Your task to perform on an android device: open the mobile data screen to see how much data has been used Image 0: 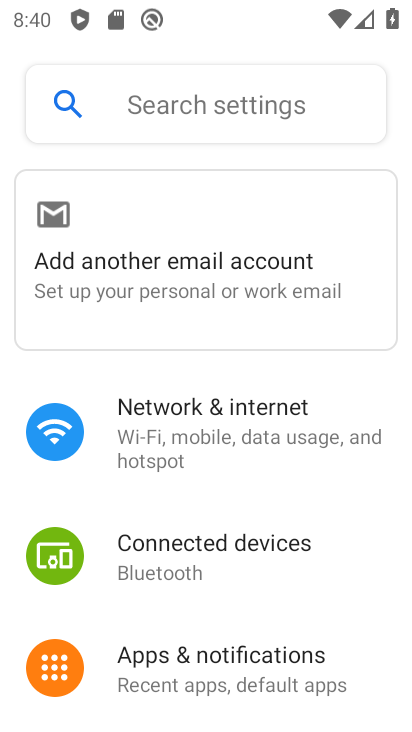
Step 0: press home button
Your task to perform on an android device: open the mobile data screen to see how much data has been used Image 1: 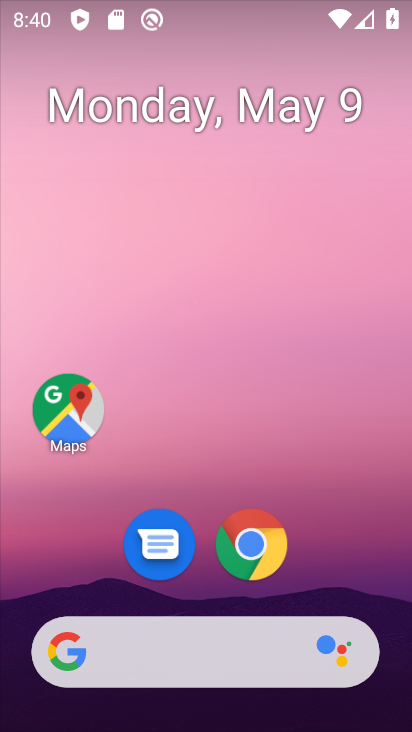
Step 1: drag from (330, 557) to (211, 87)
Your task to perform on an android device: open the mobile data screen to see how much data has been used Image 2: 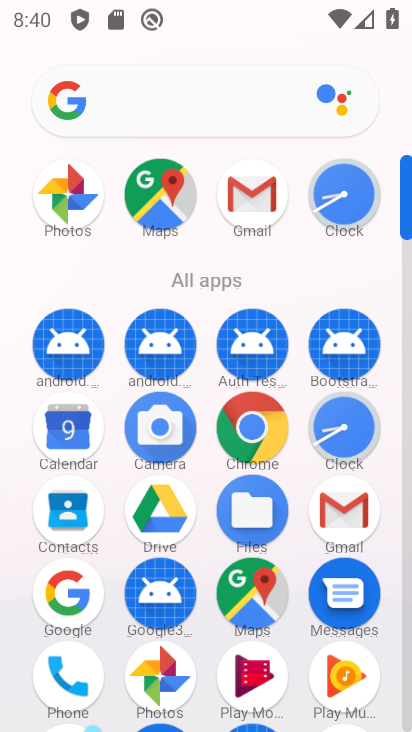
Step 2: drag from (208, 622) to (190, 228)
Your task to perform on an android device: open the mobile data screen to see how much data has been used Image 3: 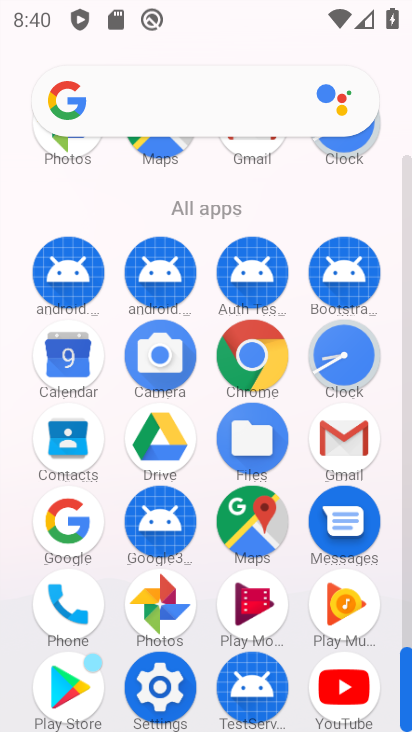
Step 3: click (154, 689)
Your task to perform on an android device: open the mobile data screen to see how much data has been used Image 4: 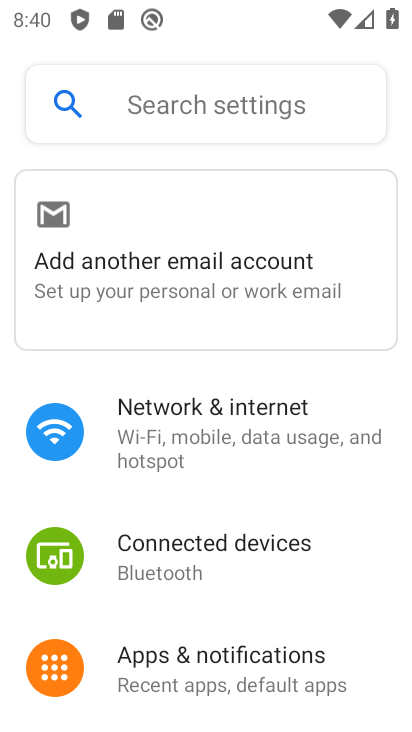
Step 4: click (184, 413)
Your task to perform on an android device: open the mobile data screen to see how much data has been used Image 5: 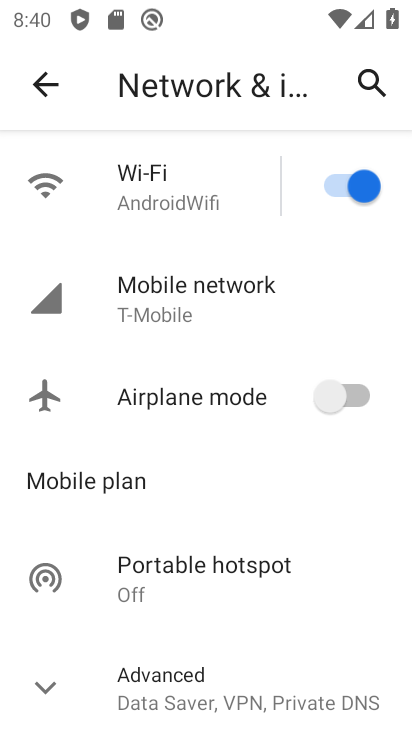
Step 5: click (172, 290)
Your task to perform on an android device: open the mobile data screen to see how much data has been used Image 6: 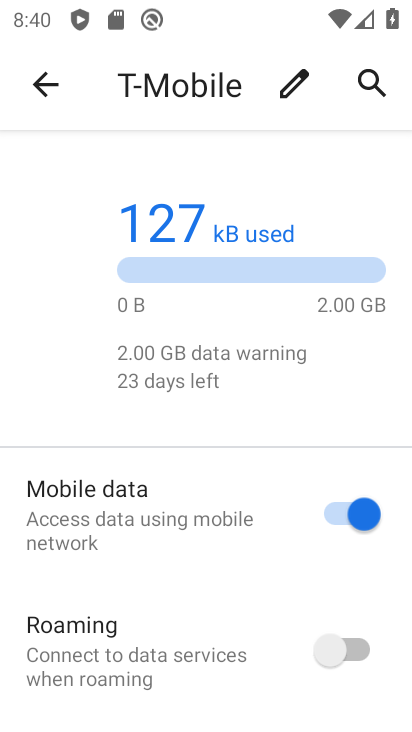
Step 6: task complete